Your task to perform on an android device: all mails in gmail Image 0: 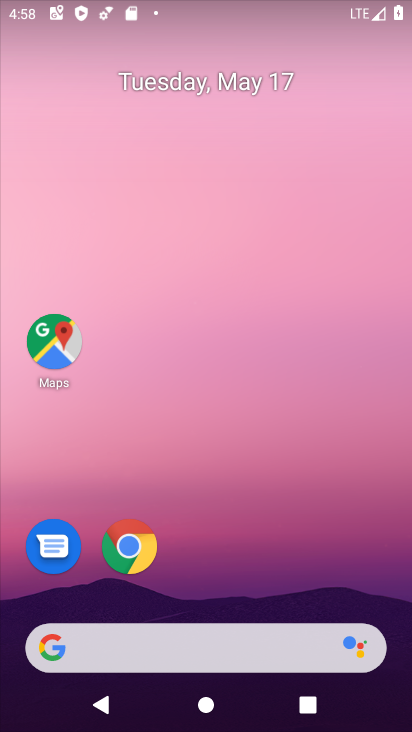
Step 0: drag from (192, 573) to (210, 41)
Your task to perform on an android device: all mails in gmail Image 1: 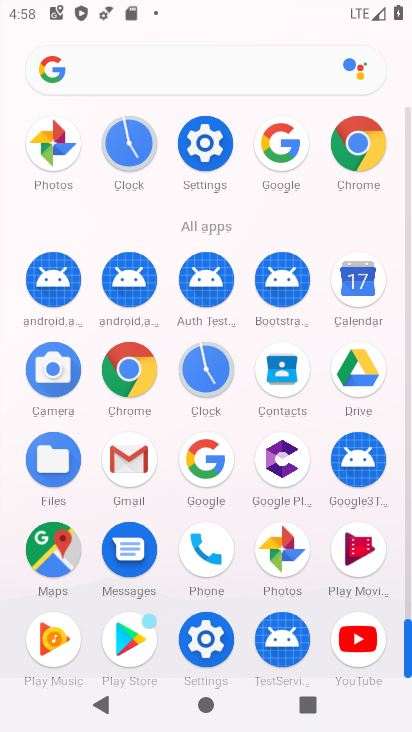
Step 1: click (129, 466)
Your task to perform on an android device: all mails in gmail Image 2: 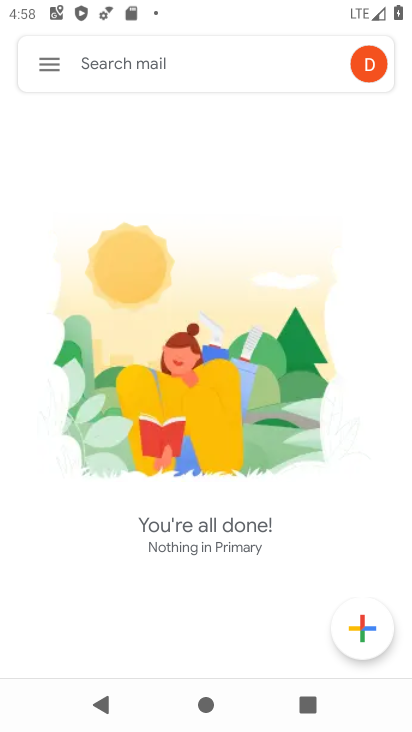
Step 2: click (44, 71)
Your task to perform on an android device: all mails in gmail Image 3: 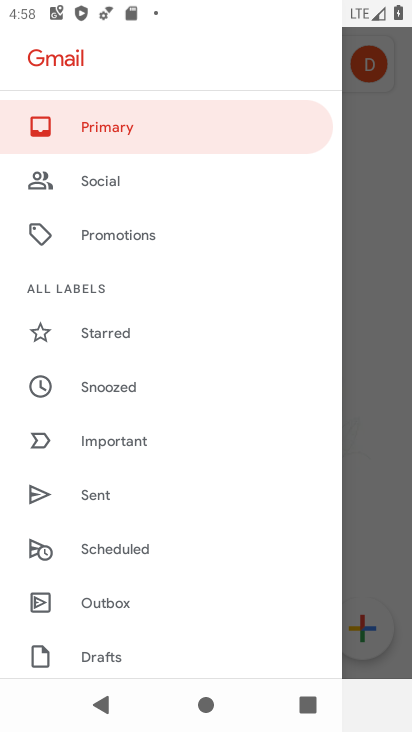
Step 3: drag from (118, 628) to (139, 293)
Your task to perform on an android device: all mails in gmail Image 4: 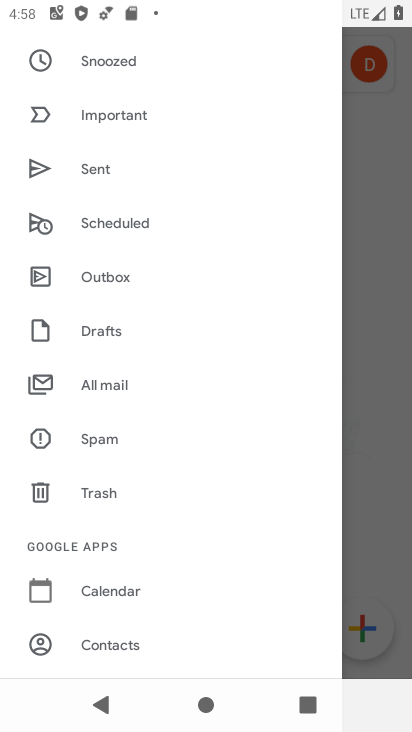
Step 4: click (88, 382)
Your task to perform on an android device: all mails in gmail Image 5: 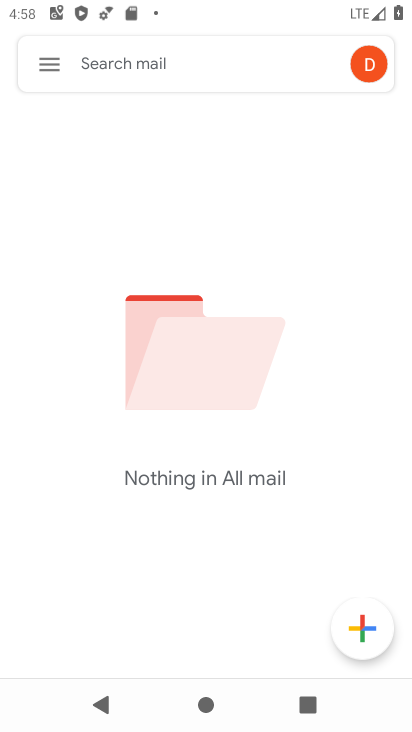
Step 5: task complete